Your task to perform on an android device: change the clock display to digital Image 0: 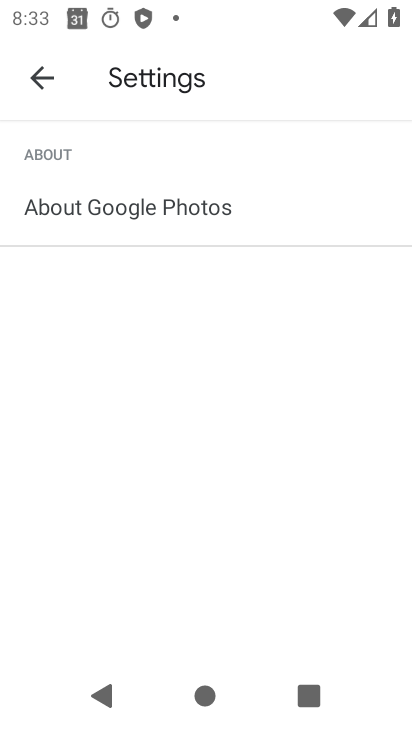
Step 0: press back button
Your task to perform on an android device: change the clock display to digital Image 1: 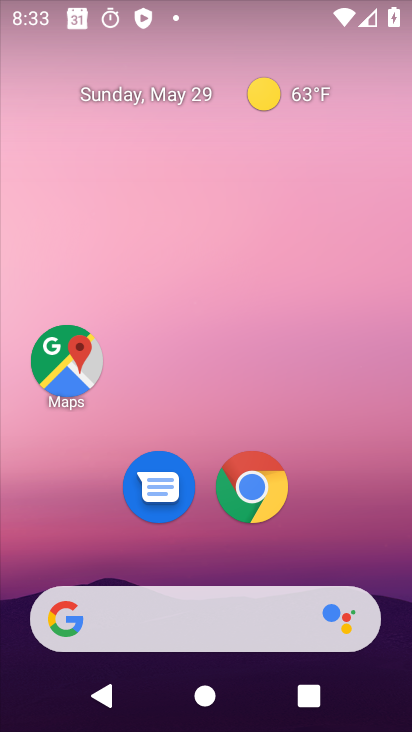
Step 1: drag from (312, 548) to (264, 131)
Your task to perform on an android device: change the clock display to digital Image 2: 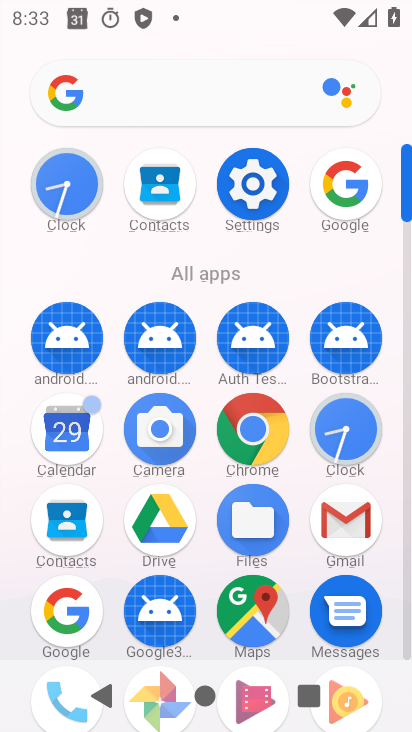
Step 2: click (66, 184)
Your task to perform on an android device: change the clock display to digital Image 3: 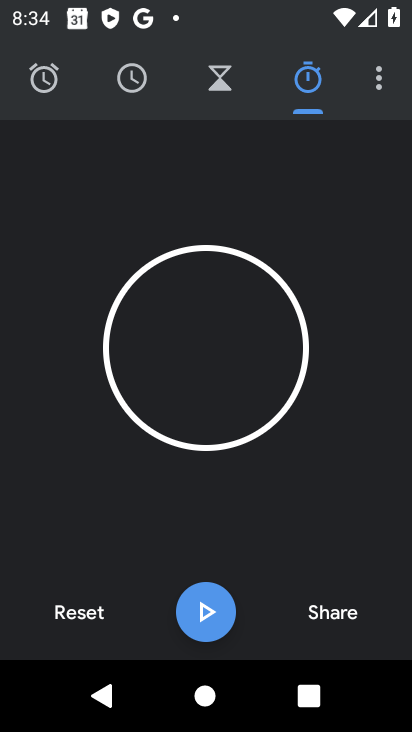
Step 3: click (377, 76)
Your task to perform on an android device: change the clock display to digital Image 4: 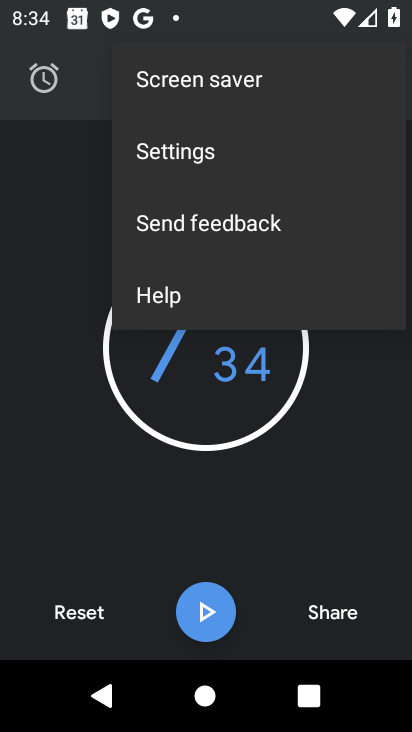
Step 4: click (218, 154)
Your task to perform on an android device: change the clock display to digital Image 5: 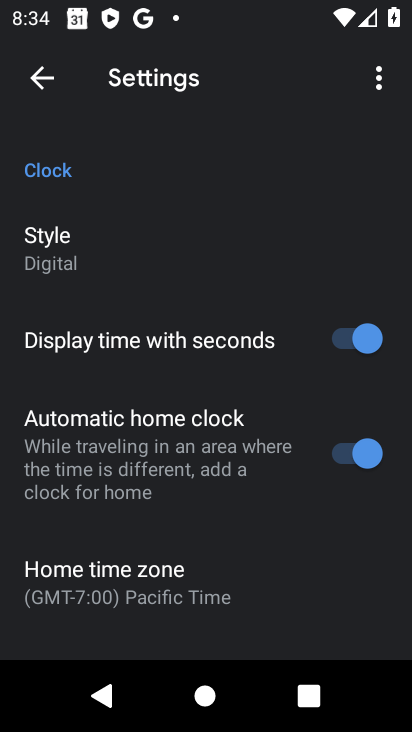
Step 5: click (120, 246)
Your task to perform on an android device: change the clock display to digital Image 6: 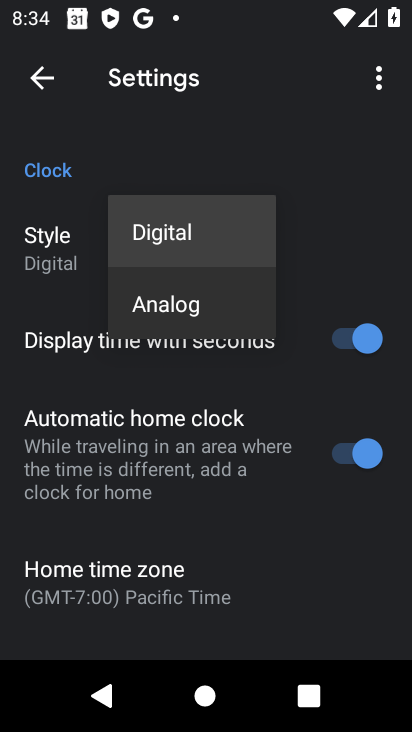
Step 6: click (137, 245)
Your task to perform on an android device: change the clock display to digital Image 7: 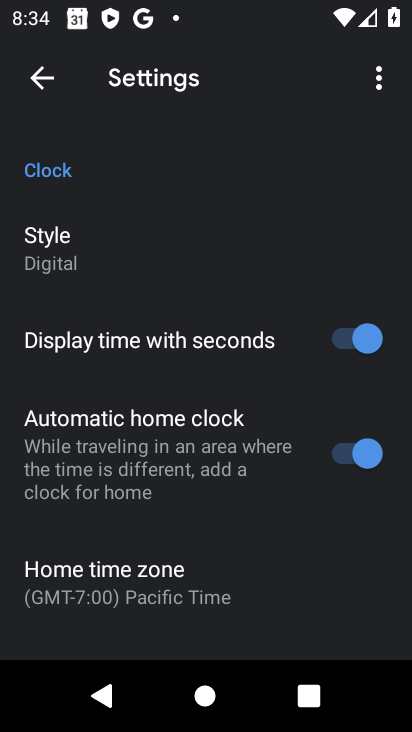
Step 7: task complete